Your task to perform on an android device: check battery use Image 0: 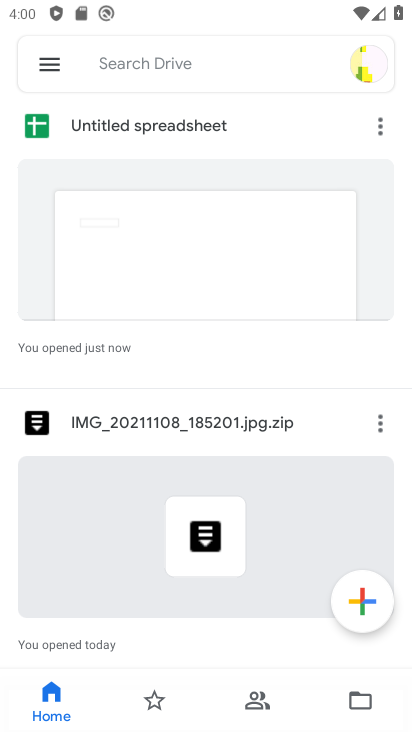
Step 0: press home button
Your task to perform on an android device: check battery use Image 1: 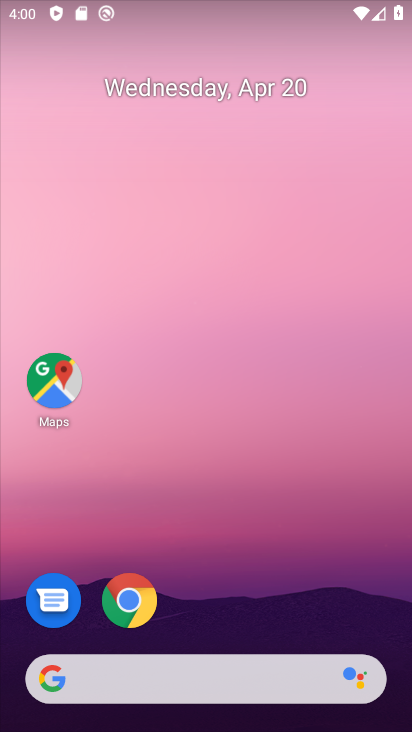
Step 1: drag from (223, 589) to (267, 125)
Your task to perform on an android device: check battery use Image 2: 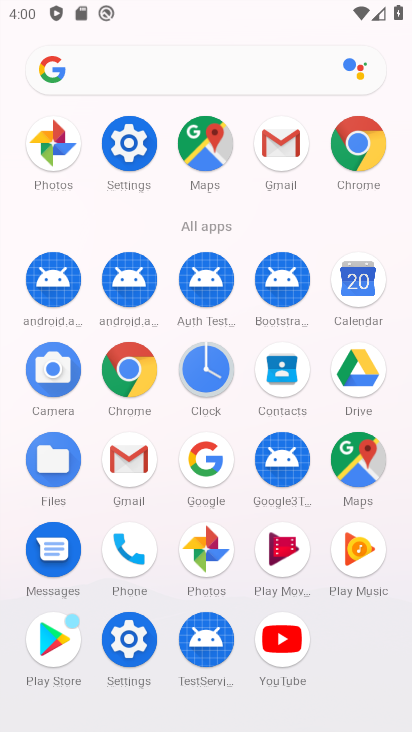
Step 2: click (127, 140)
Your task to perform on an android device: check battery use Image 3: 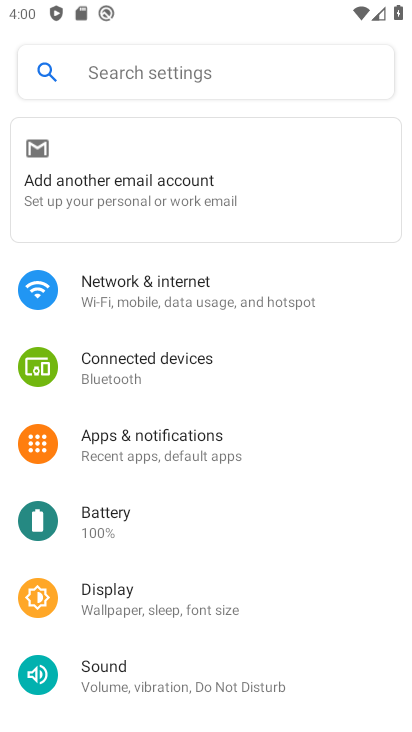
Step 3: click (132, 517)
Your task to perform on an android device: check battery use Image 4: 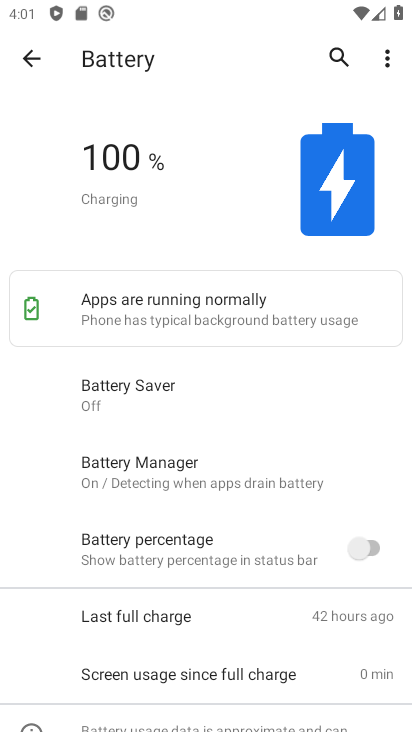
Step 4: click (390, 56)
Your task to perform on an android device: check battery use Image 5: 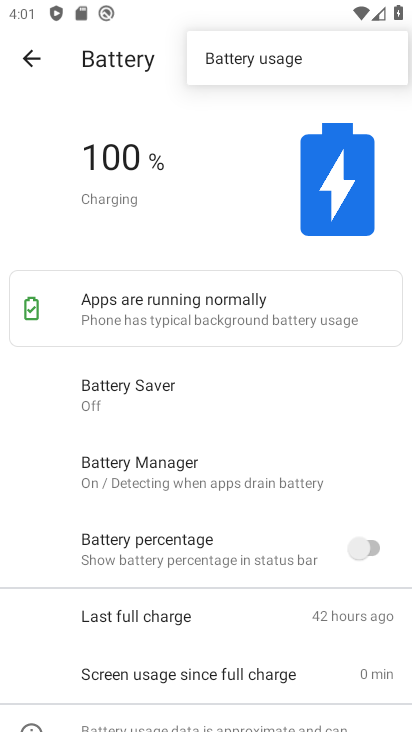
Step 5: click (286, 56)
Your task to perform on an android device: check battery use Image 6: 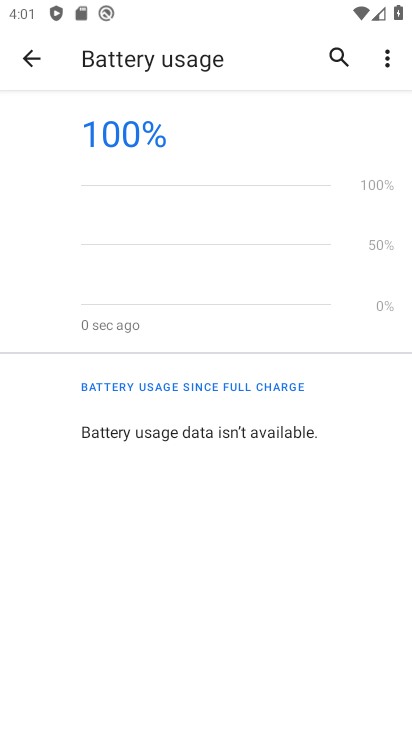
Step 6: task complete